Your task to perform on an android device: Open Google Image 0: 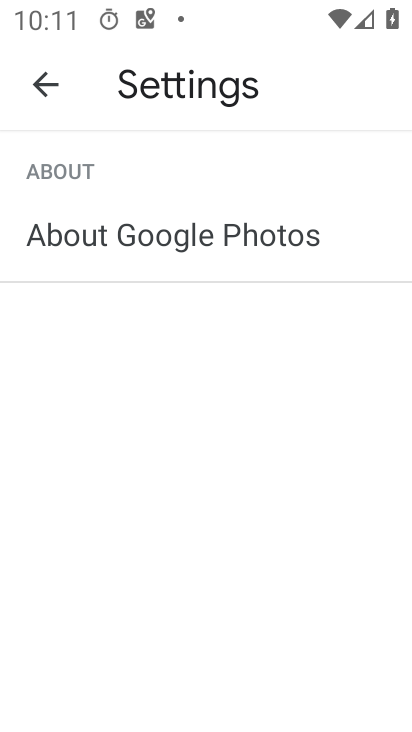
Step 0: press home button
Your task to perform on an android device: Open Google Image 1: 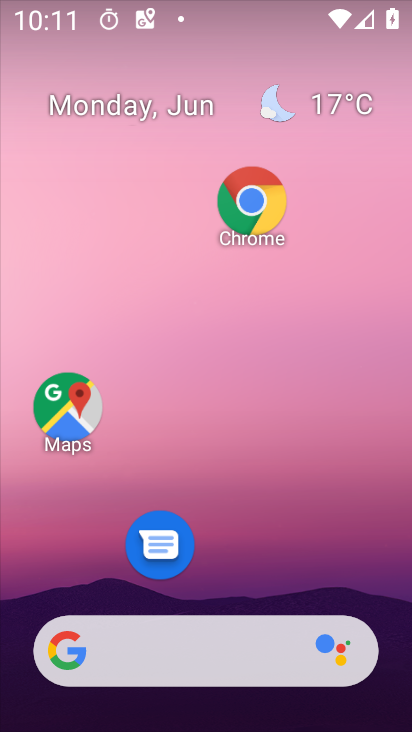
Step 1: click (223, 623)
Your task to perform on an android device: Open Google Image 2: 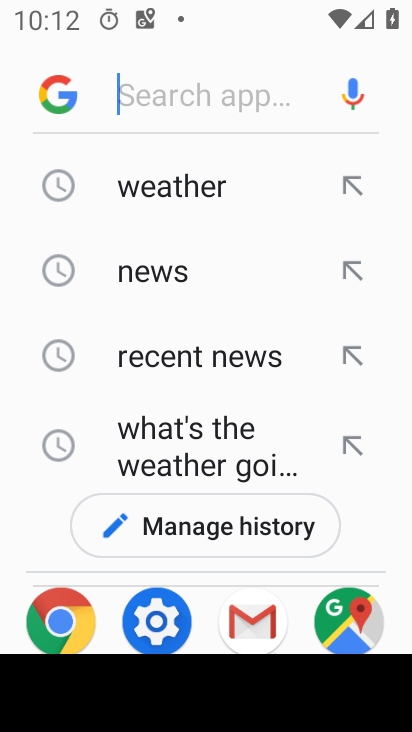
Step 2: task complete